Your task to perform on an android device: turn on priority inbox in the gmail app Image 0: 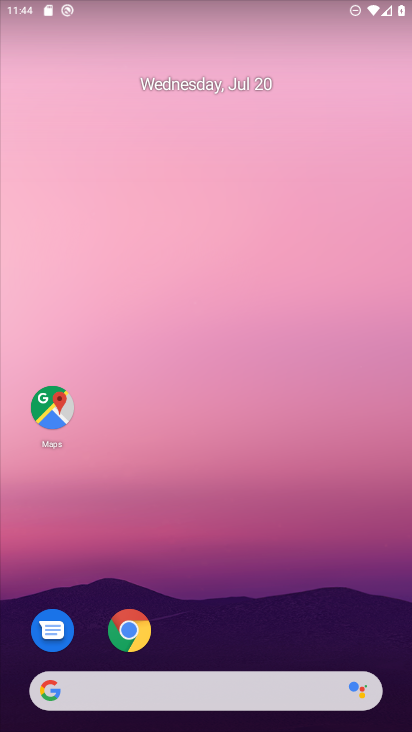
Step 0: drag from (324, 560) to (306, 84)
Your task to perform on an android device: turn on priority inbox in the gmail app Image 1: 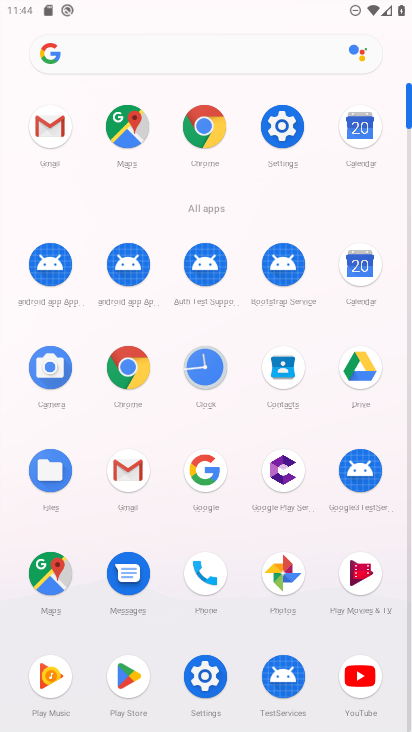
Step 1: click (142, 482)
Your task to perform on an android device: turn on priority inbox in the gmail app Image 2: 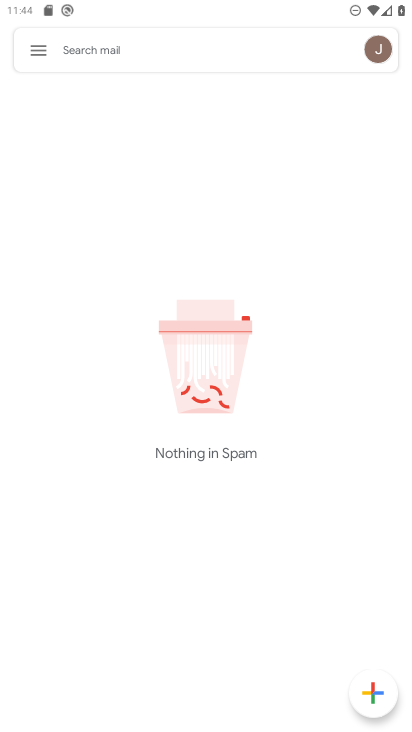
Step 2: click (42, 53)
Your task to perform on an android device: turn on priority inbox in the gmail app Image 3: 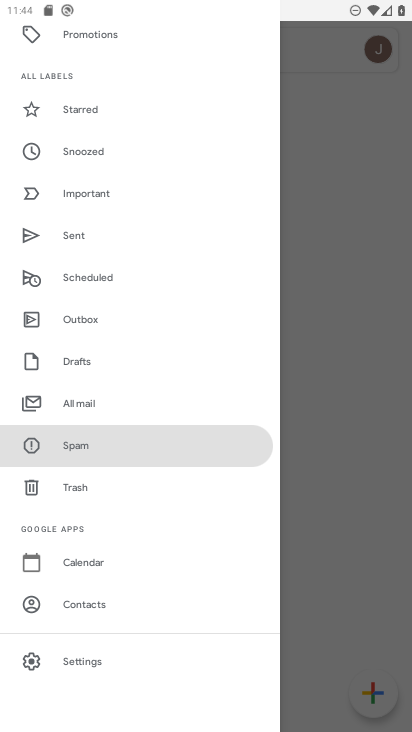
Step 3: click (93, 663)
Your task to perform on an android device: turn on priority inbox in the gmail app Image 4: 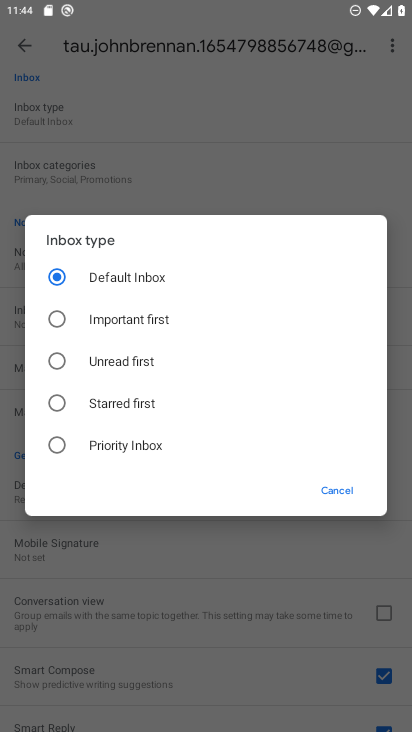
Step 4: click (105, 450)
Your task to perform on an android device: turn on priority inbox in the gmail app Image 5: 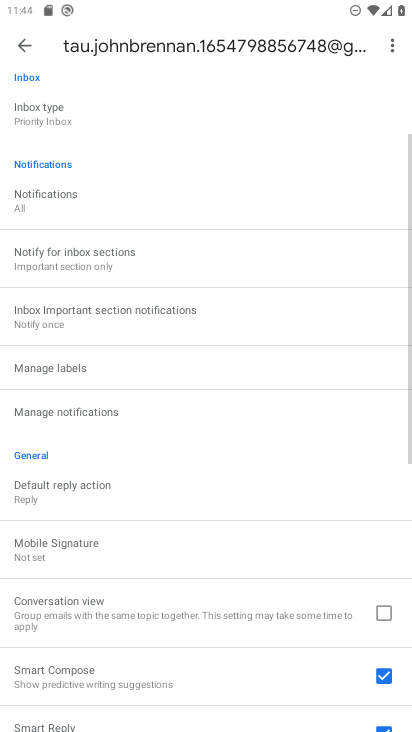
Step 5: click (82, 117)
Your task to perform on an android device: turn on priority inbox in the gmail app Image 6: 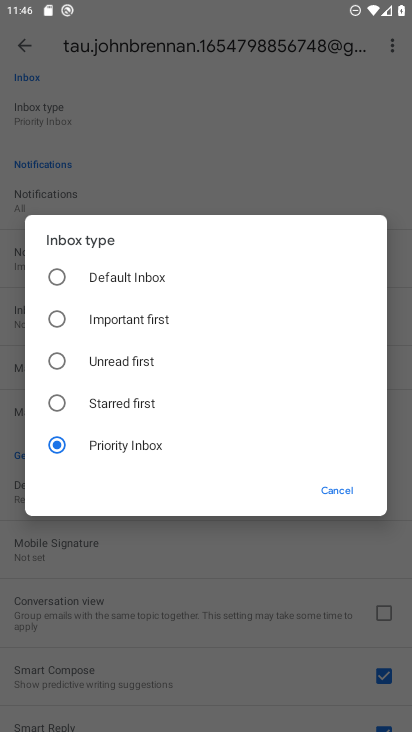
Step 6: task complete